Your task to perform on an android device: turn on airplane mode Image 0: 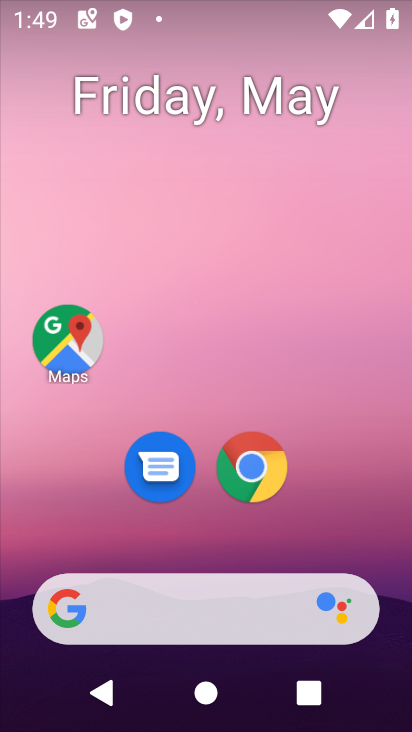
Step 0: drag from (317, 545) to (352, 129)
Your task to perform on an android device: turn on airplane mode Image 1: 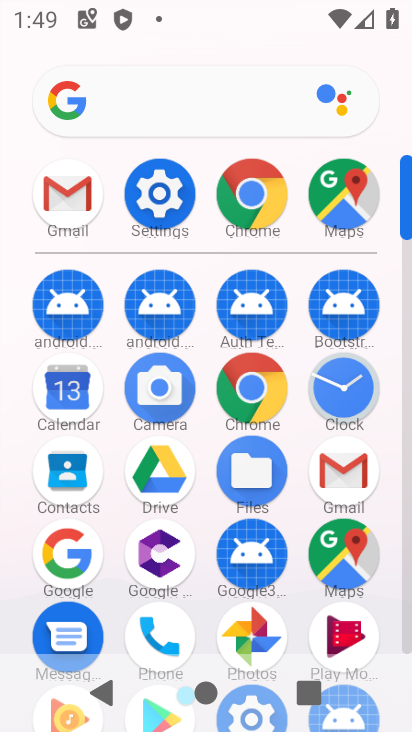
Step 1: click (165, 201)
Your task to perform on an android device: turn on airplane mode Image 2: 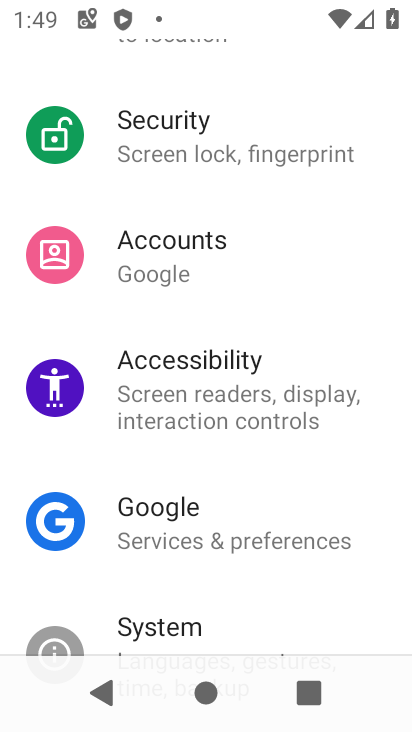
Step 2: drag from (234, 171) to (193, 557)
Your task to perform on an android device: turn on airplane mode Image 3: 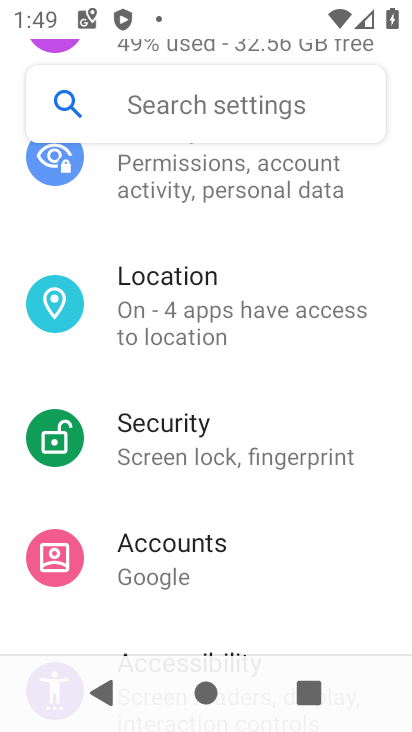
Step 3: drag from (207, 192) to (249, 553)
Your task to perform on an android device: turn on airplane mode Image 4: 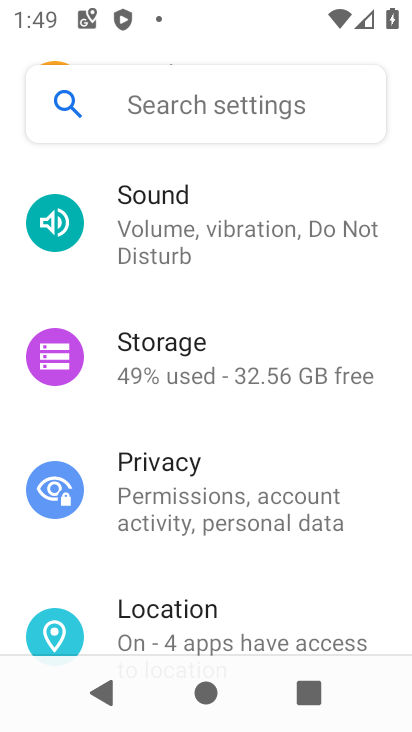
Step 4: drag from (230, 223) to (284, 606)
Your task to perform on an android device: turn on airplane mode Image 5: 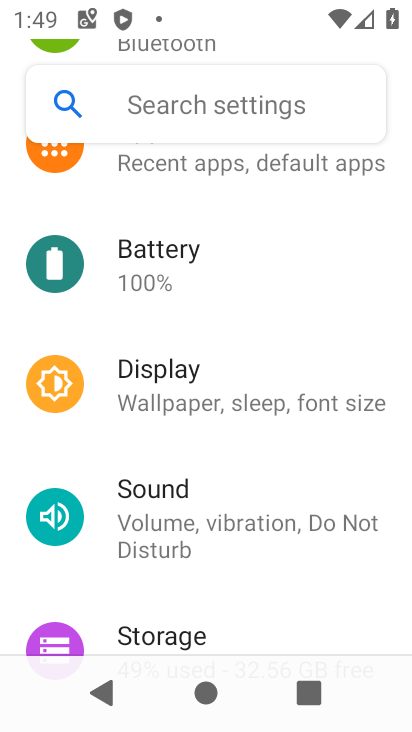
Step 5: drag from (242, 217) to (284, 584)
Your task to perform on an android device: turn on airplane mode Image 6: 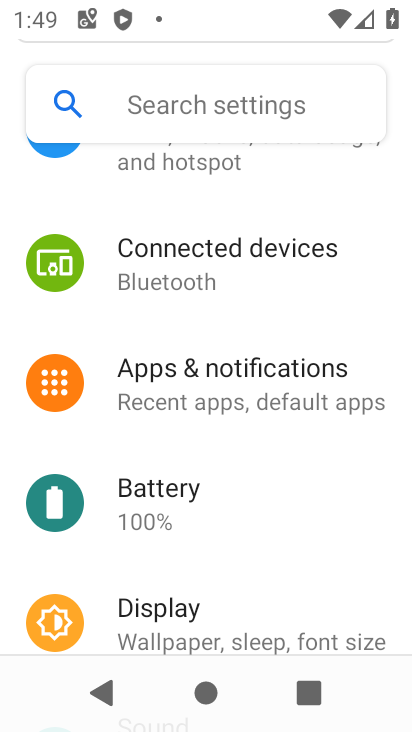
Step 6: drag from (248, 228) to (262, 627)
Your task to perform on an android device: turn on airplane mode Image 7: 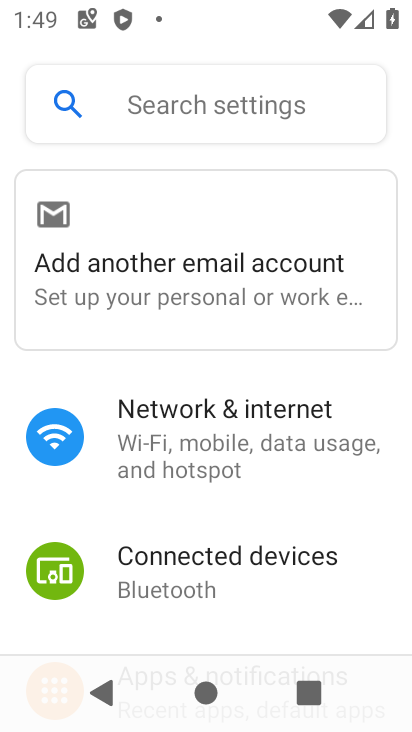
Step 7: click (173, 422)
Your task to perform on an android device: turn on airplane mode Image 8: 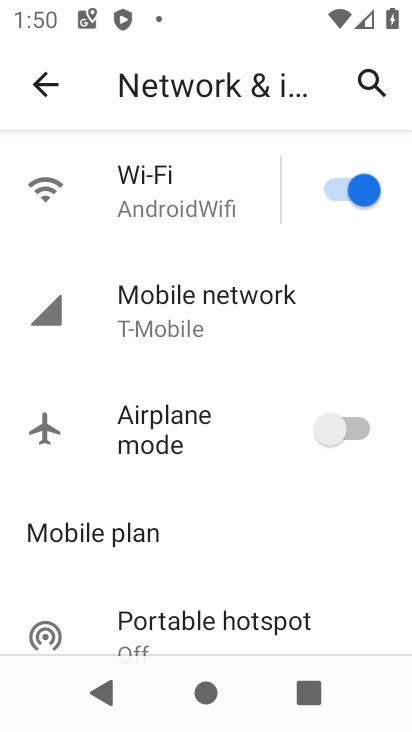
Step 8: click (350, 429)
Your task to perform on an android device: turn on airplane mode Image 9: 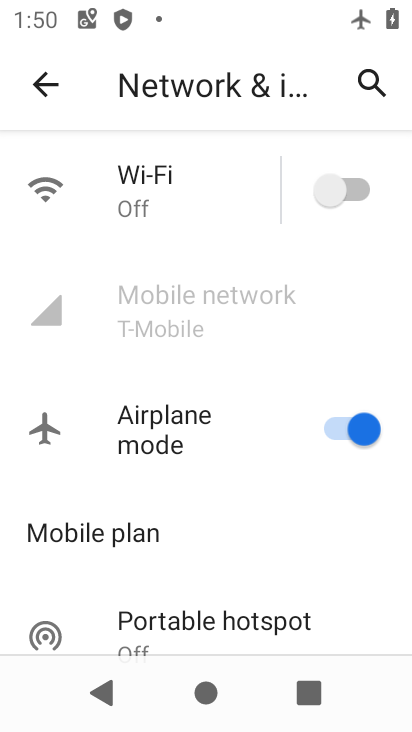
Step 9: task complete